Your task to perform on an android device: What's on my calendar tomorrow? Image 0: 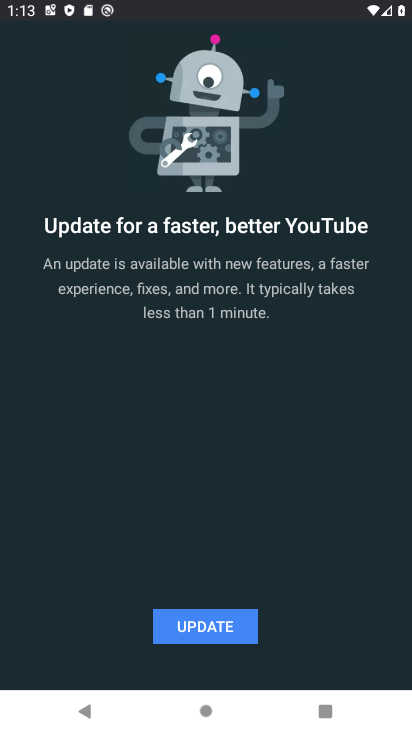
Step 0: press back button
Your task to perform on an android device: What's on my calendar tomorrow? Image 1: 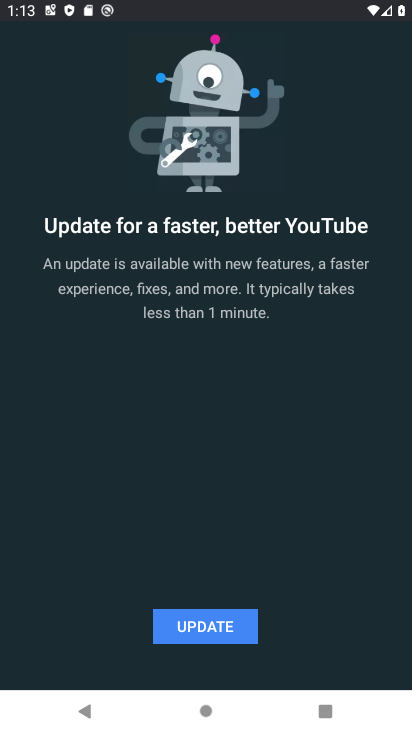
Step 1: press back button
Your task to perform on an android device: What's on my calendar tomorrow? Image 2: 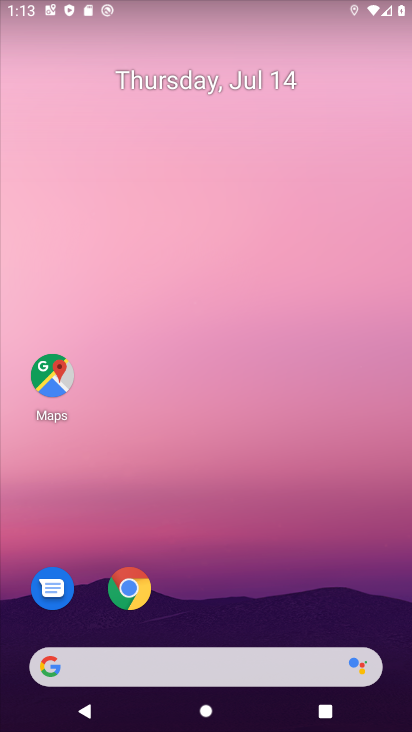
Step 2: drag from (255, 642) to (167, 158)
Your task to perform on an android device: What's on my calendar tomorrow? Image 3: 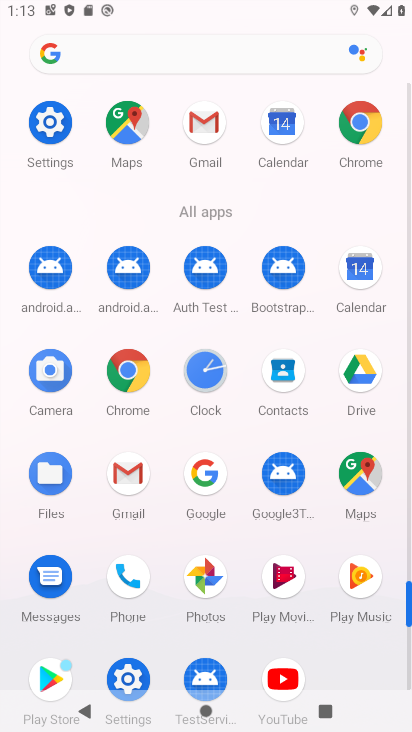
Step 3: click (351, 272)
Your task to perform on an android device: What's on my calendar tomorrow? Image 4: 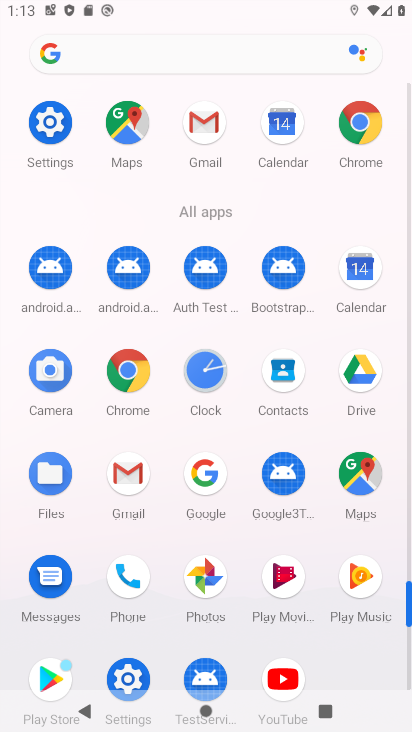
Step 4: click (353, 272)
Your task to perform on an android device: What's on my calendar tomorrow? Image 5: 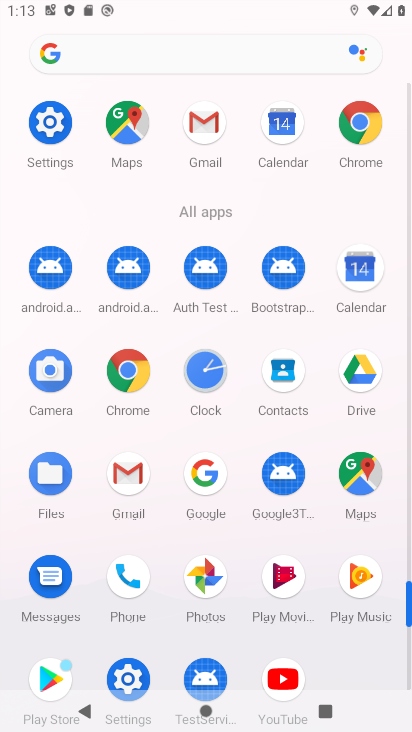
Step 5: click (355, 272)
Your task to perform on an android device: What's on my calendar tomorrow? Image 6: 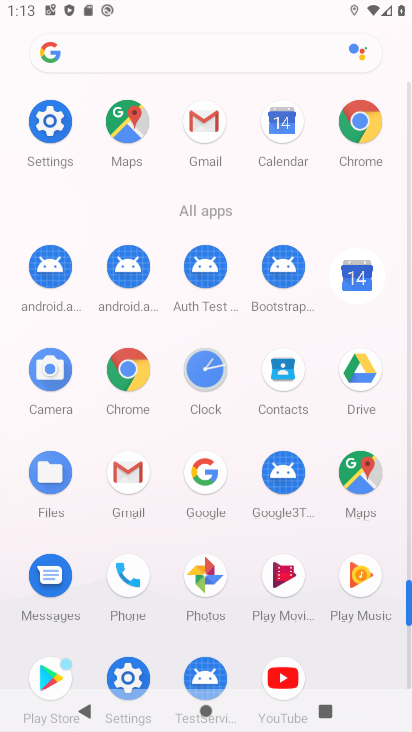
Step 6: click (356, 271)
Your task to perform on an android device: What's on my calendar tomorrow? Image 7: 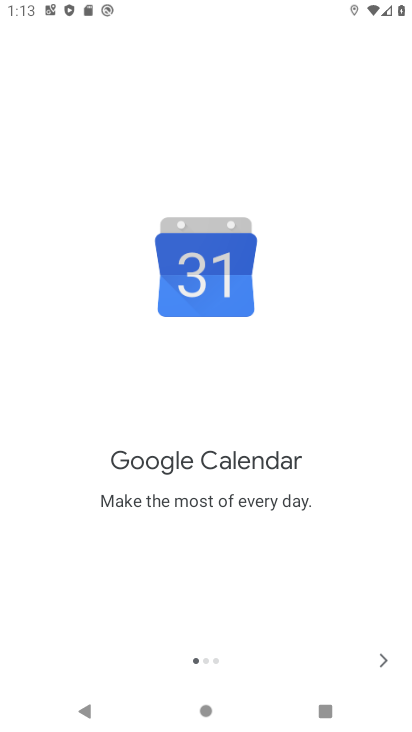
Step 7: click (383, 646)
Your task to perform on an android device: What's on my calendar tomorrow? Image 8: 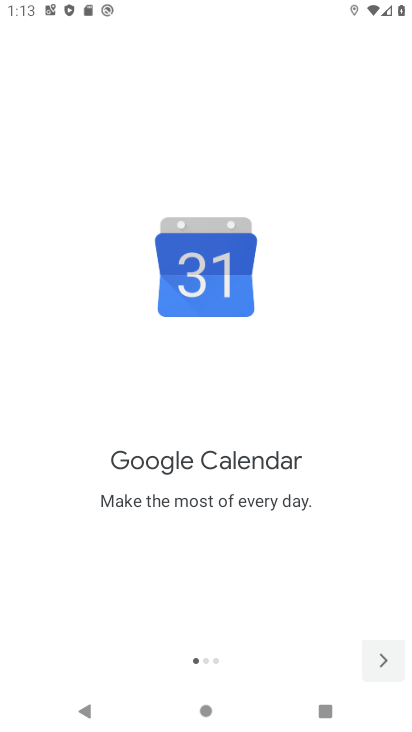
Step 8: click (392, 661)
Your task to perform on an android device: What's on my calendar tomorrow? Image 9: 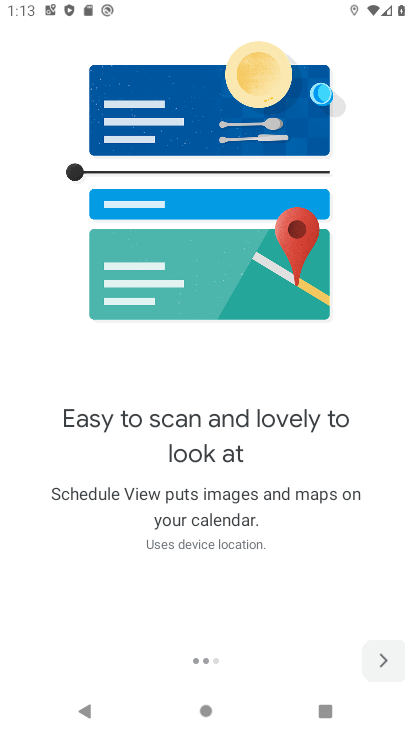
Step 9: click (385, 661)
Your task to perform on an android device: What's on my calendar tomorrow? Image 10: 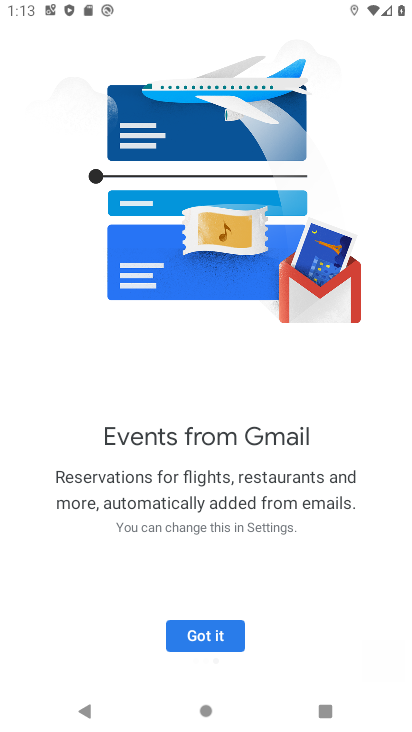
Step 10: click (383, 661)
Your task to perform on an android device: What's on my calendar tomorrow? Image 11: 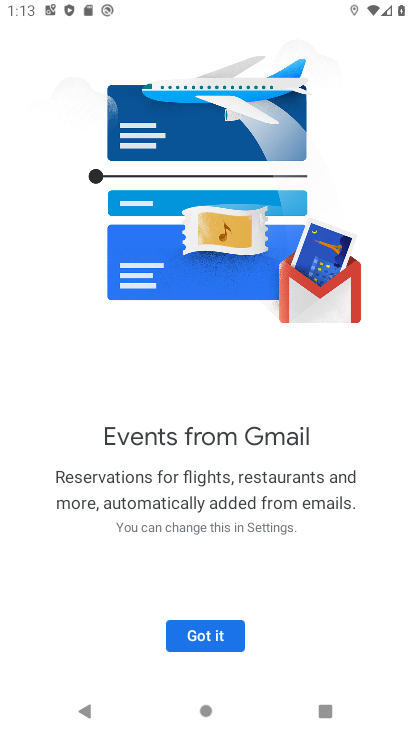
Step 11: click (383, 661)
Your task to perform on an android device: What's on my calendar tomorrow? Image 12: 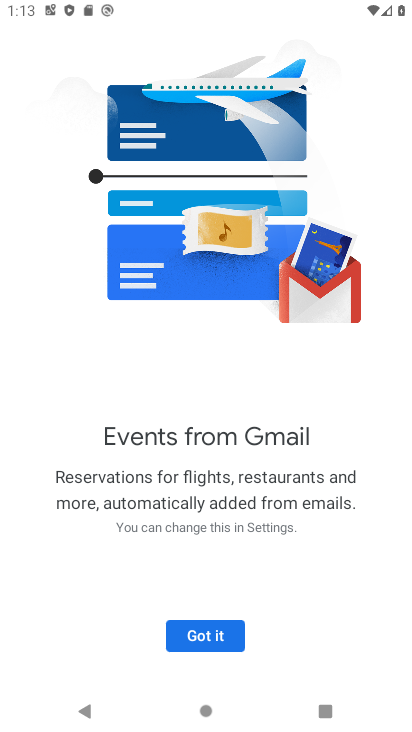
Step 12: click (212, 634)
Your task to perform on an android device: What's on my calendar tomorrow? Image 13: 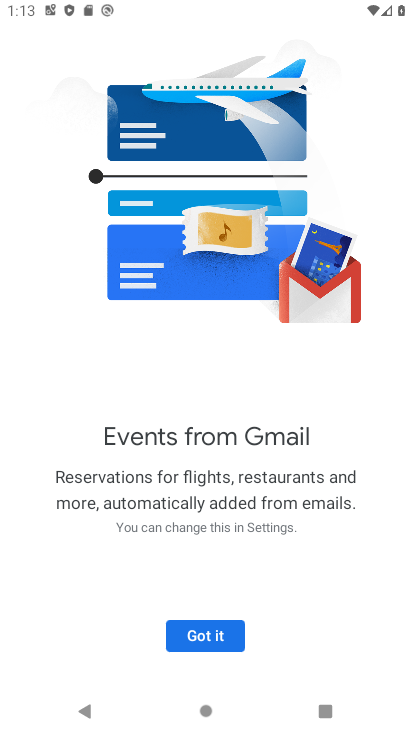
Step 13: click (212, 634)
Your task to perform on an android device: What's on my calendar tomorrow? Image 14: 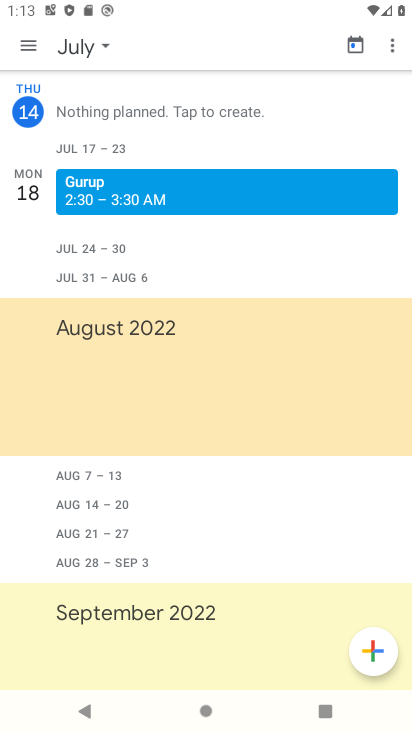
Step 14: click (105, 48)
Your task to perform on an android device: What's on my calendar tomorrow? Image 15: 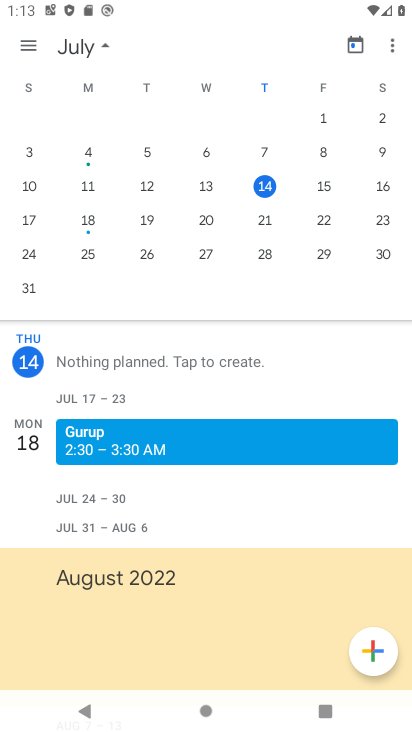
Step 15: click (328, 188)
Your task to perform on an android device: What's on my calendar tomorrow? Image 16: 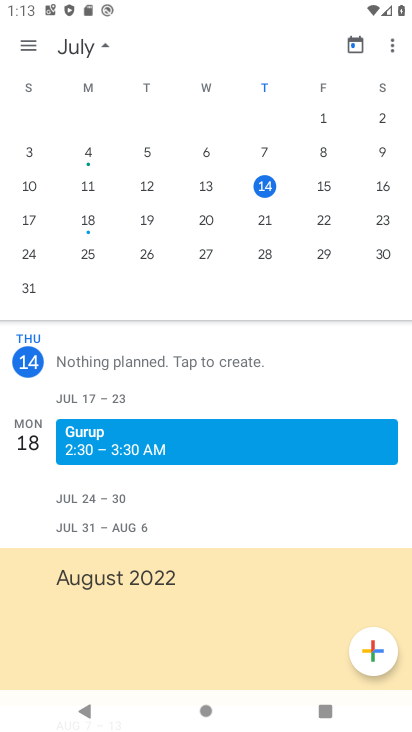
Step 16: click (329, 188)
Your task to perform on an android device: What's on my calendar tomorrow? Image 17: 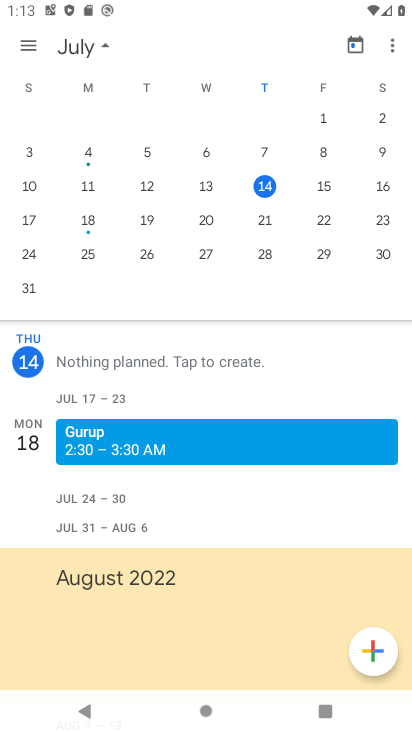
Step 17: click (329, 188)
Your task to perform on an android device: What's on my calendar tomorrow? Image 18: 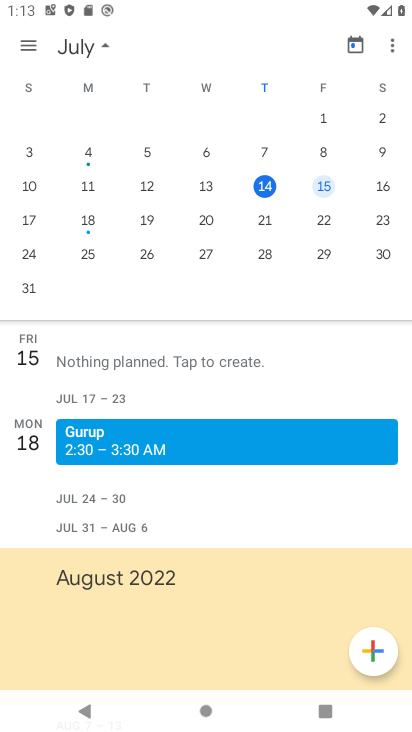
Step 18: click (329, 186)
Your task to perform on an android device: What's on my calendar tomorrow? Image 19: 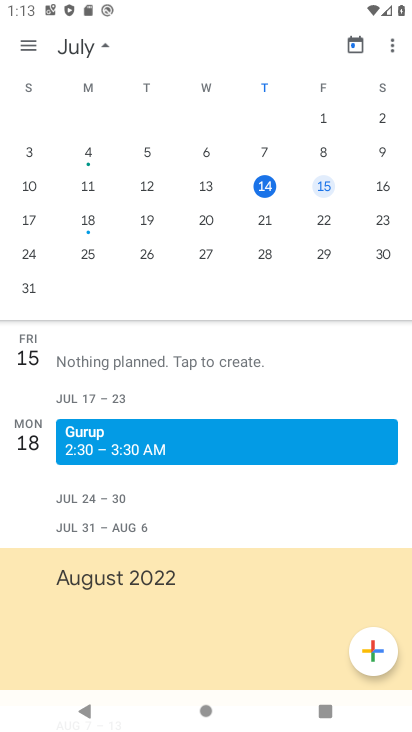
Step 19: click (329, 186)
Your task to perform on an android device: What's on my calendar tomorrow? Image 20: 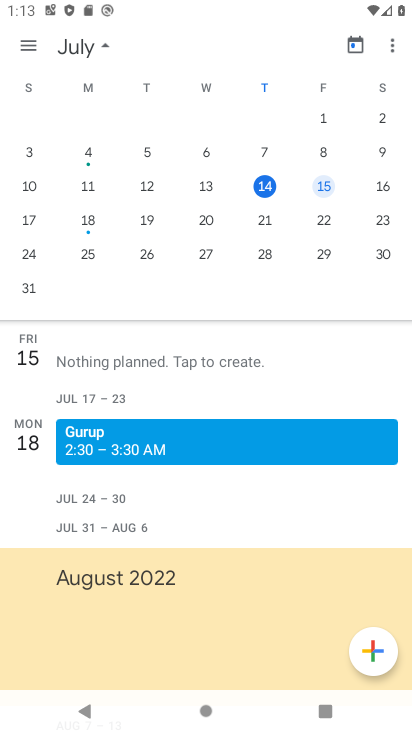
Step 20: click (325, 183)
Your task to perform on an android device: What's on my calendar tomorrow? Image 21: 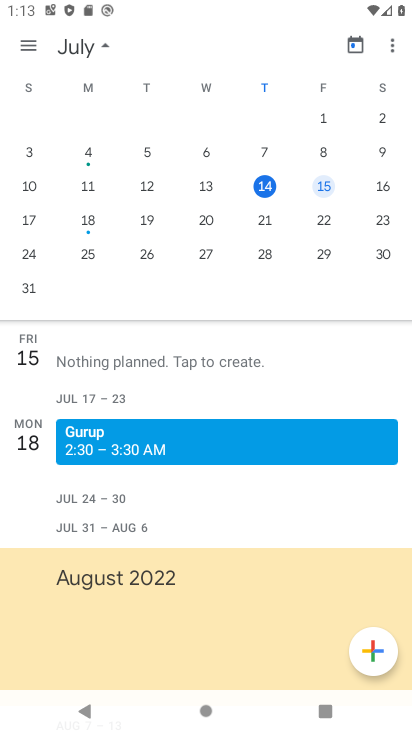
Step 21: click (325, 183)
Your task to perform on an android device: What's on my calendar tomorrow? Image 22: 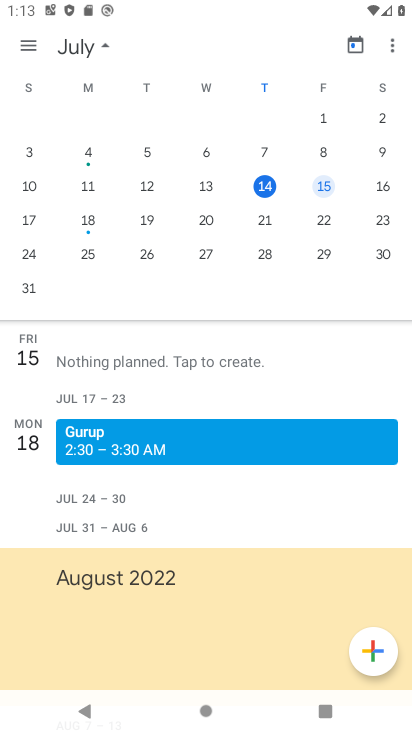
Step 22: click (327, 182)
Your task to perform on an android device: What's on my calendar tomorrow? Image 23: 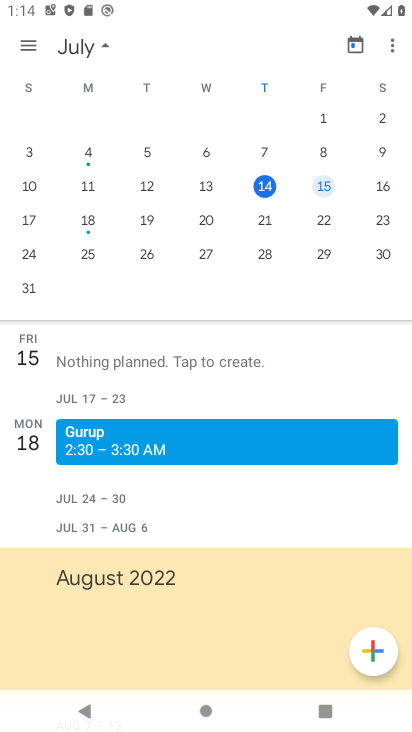
Step 23: task complete